Your task to perform on an android device: snooze an email in the gmail app Image 0: 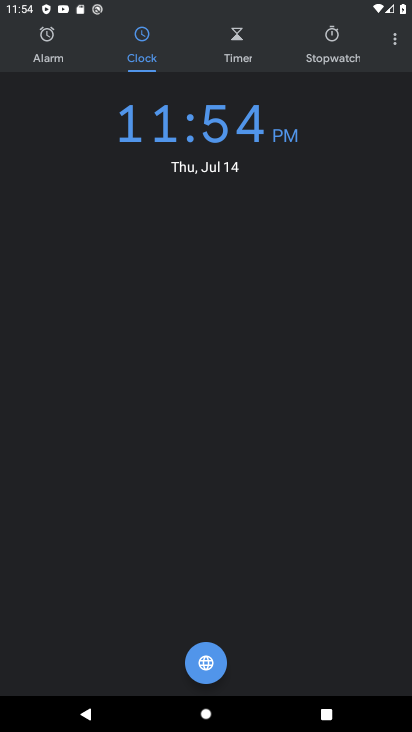
Step 0: press home button
Your task to perform on an android device: snooze an email in the gmail app Image 1: 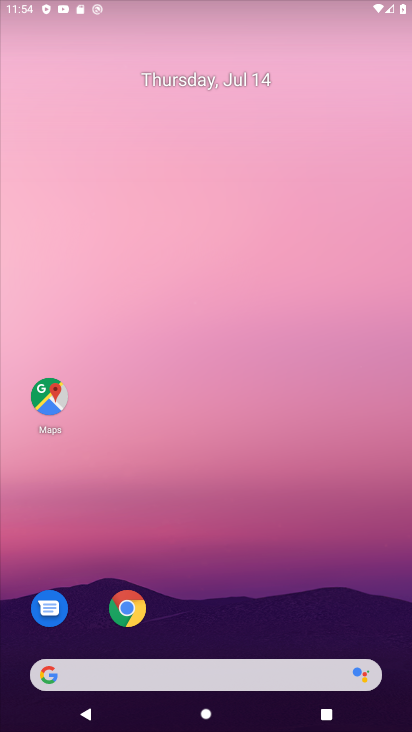
Step 1: drag from (236, 652) to (263, 159)
Your task to perform on an android device: snooze an email in the gmail app Image 2: 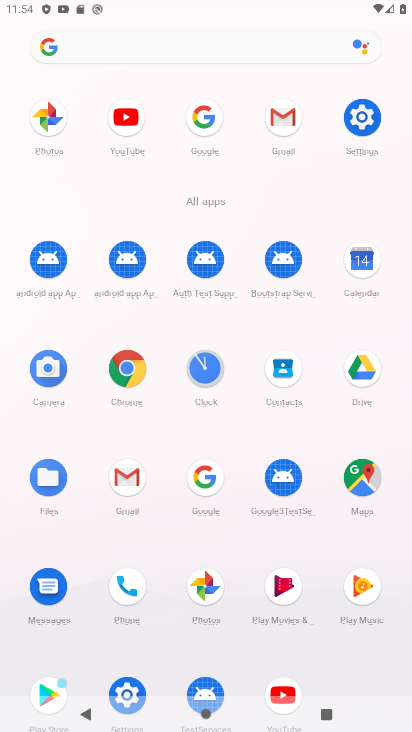
Step 2: click (281, 117)
Your task to perform on an android device: snooze an email in the gmail app Image 3: 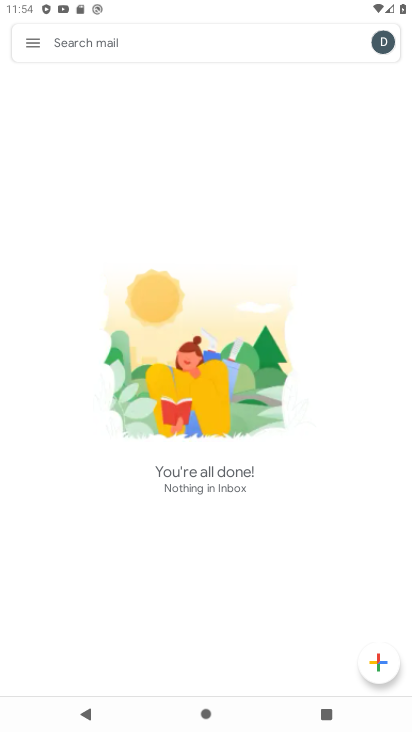
Step 3: click (29, 48)
Your task to perform on an android device: snooze an email in the gmail app Image 4: 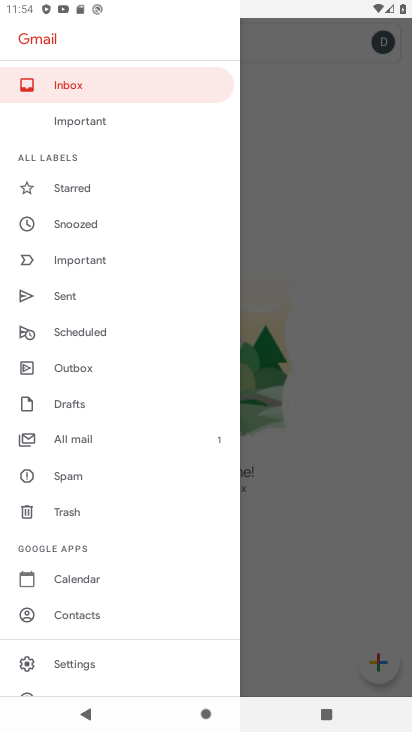
Step 4: click (78, 438)
Your task to perform on an android device: snooze an email in the gmail app Image 5: 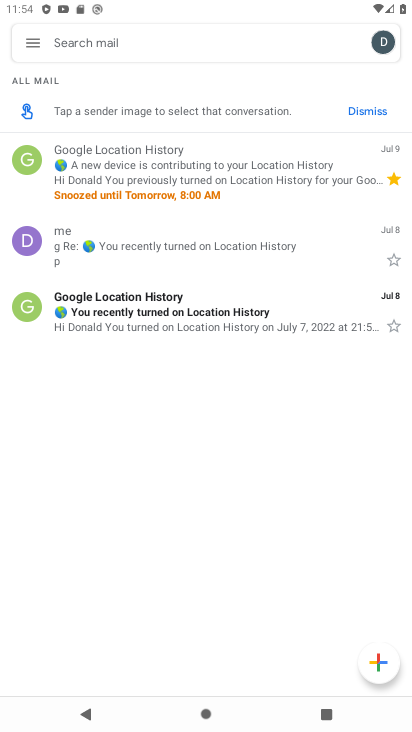
Step 5: click (174, 255)
Your task to perform on an android device: snooze an email in the gmail app Image 6: 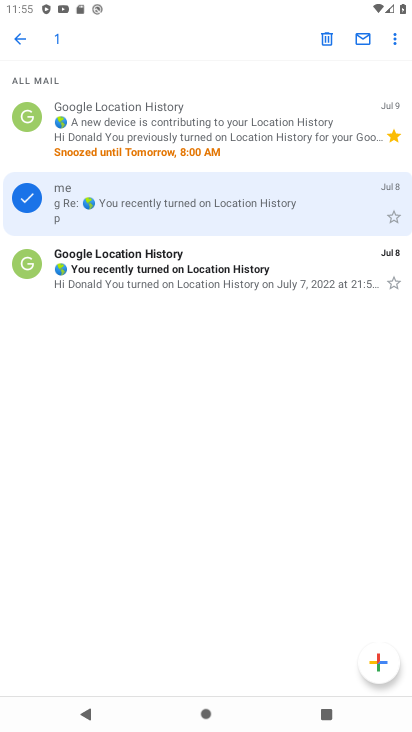
Step 6: click (394, 32)
Your task to perform on an android device: snooze an email in the gmail app Image 7: 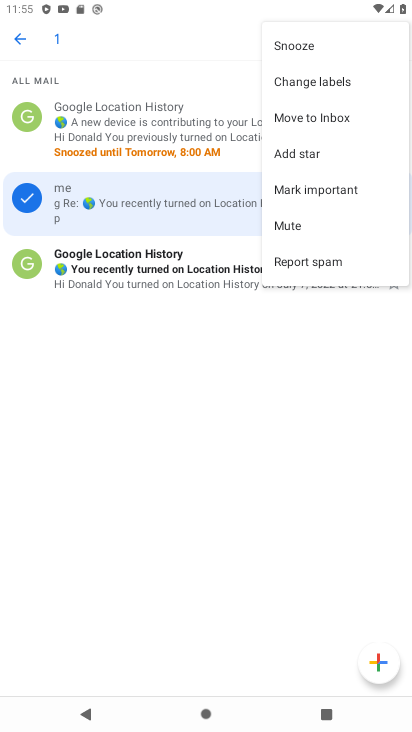
Step 7: click (332, 50)
Your task to perform on an android device: snooze an email in the gmail app Image 8: 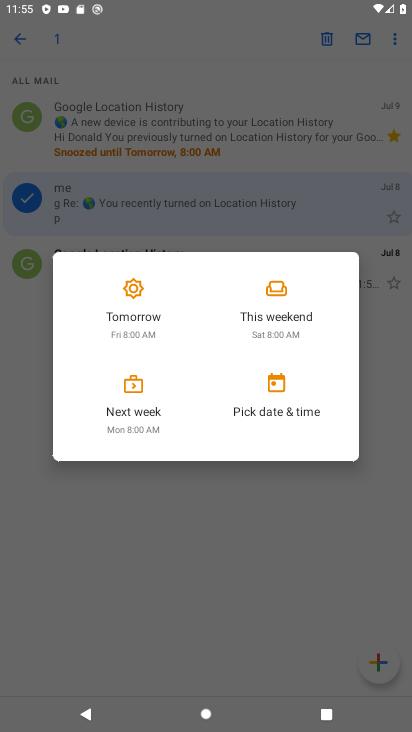
Step 8: click (122, 309)
Your task to perform on an android device: snooze an email in the gmail app Image 9: 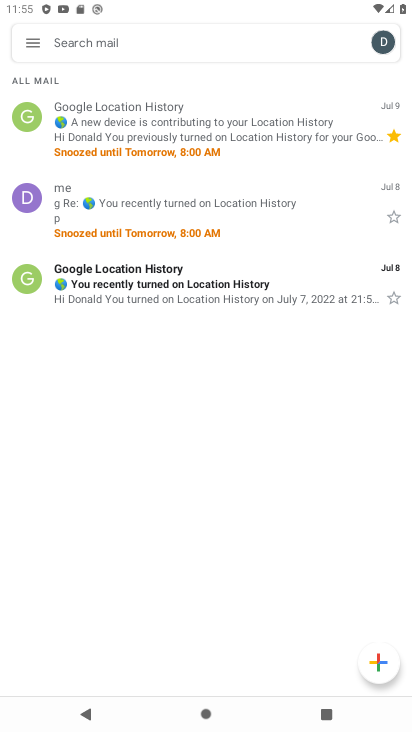
Step 9: task complete